Your task to perform on an android device: Open ESPN.com Image 0: 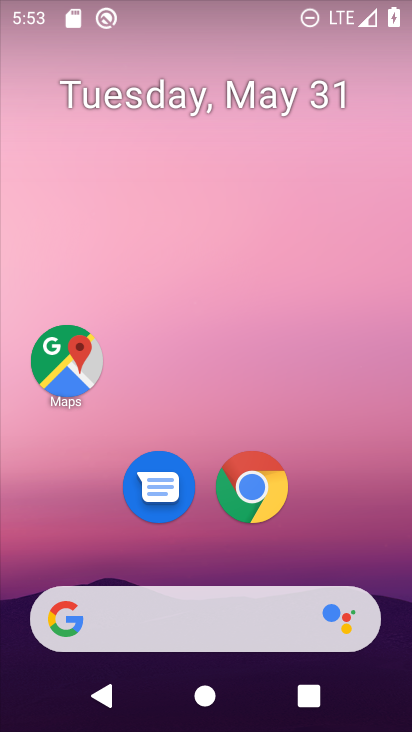
Step 0: click (224, 633)
Your task to perform on an android device: Open ESPN.com Image 1: 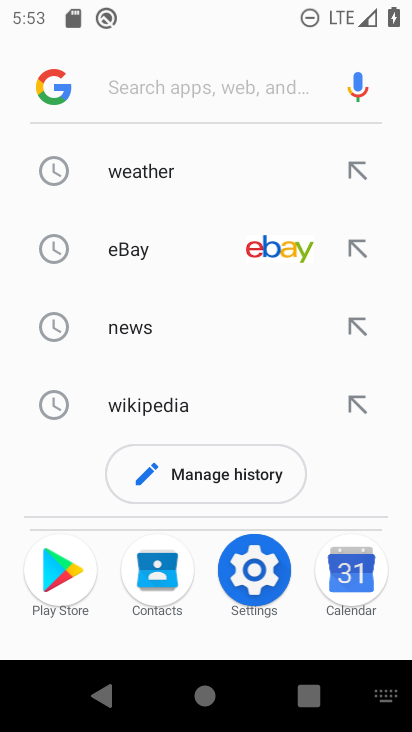
Step 1: type "espn.com"
Your task to perform on an android device: Open ESPN.com Image 2: 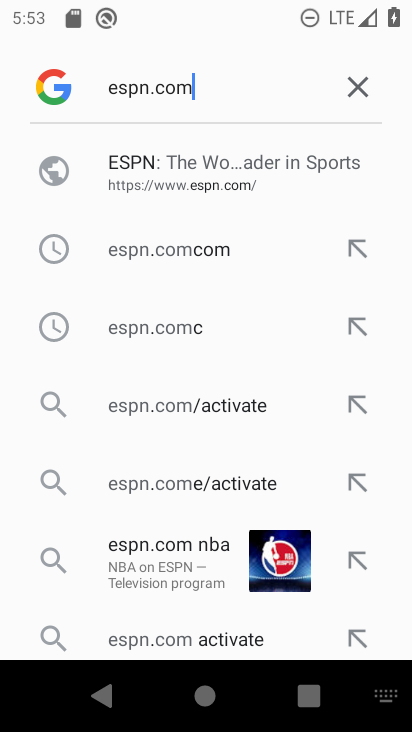
Step 2: click (196, 159)
Your task to perform on an android device: Open ESPN.com Image 3: 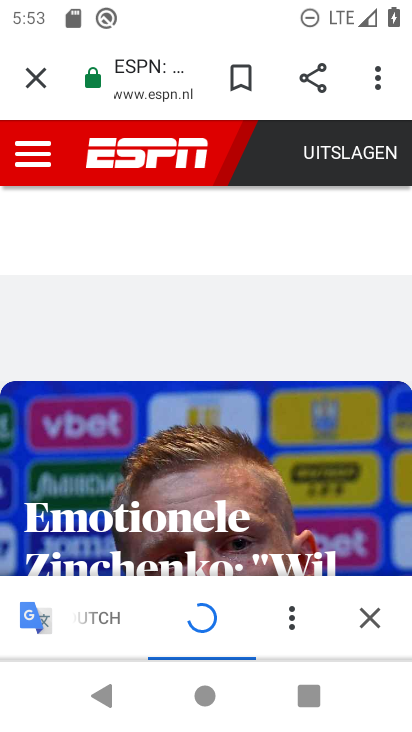
Step 3: task complete